Your task to perform on an android device: turn notification dots on Image 0: 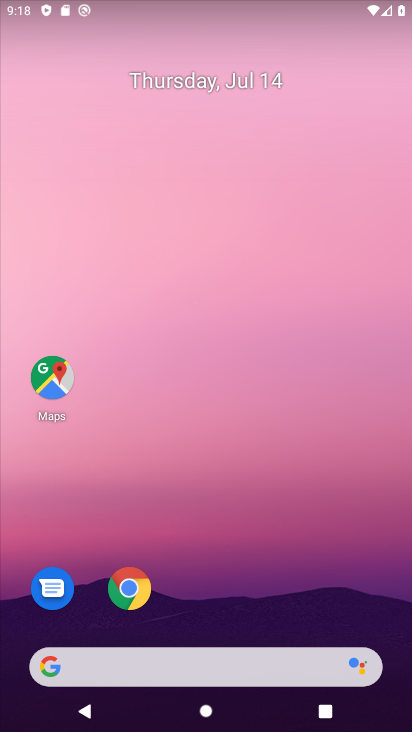
Step 0: drag from (198, 665) to (232, 259)
Your task to perform on an android device: turn notification dots on Image 1: 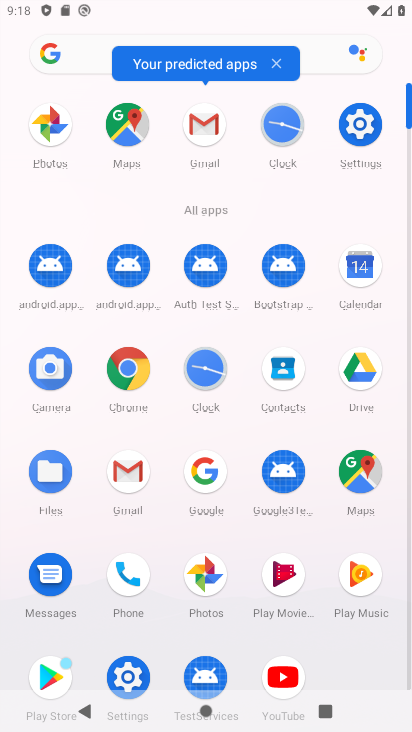
Step 1: click (358, 132)
Your task to perform on an android device: turn notification dots on Image 2: 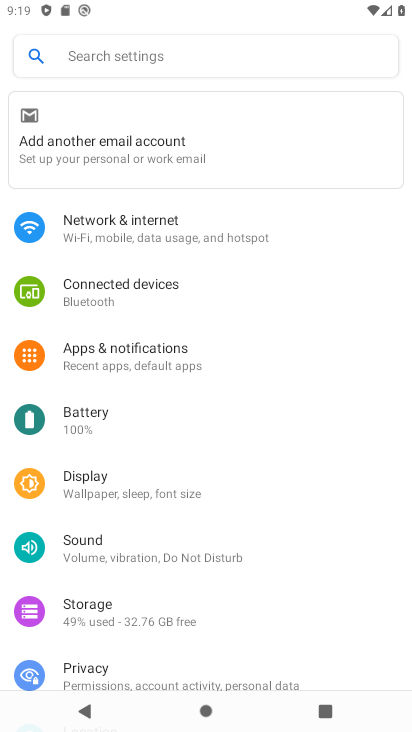
Step 2: drag from (103, 675) to (149, 402)
Your task to perform on an android device: turn notification dots on Image 3: 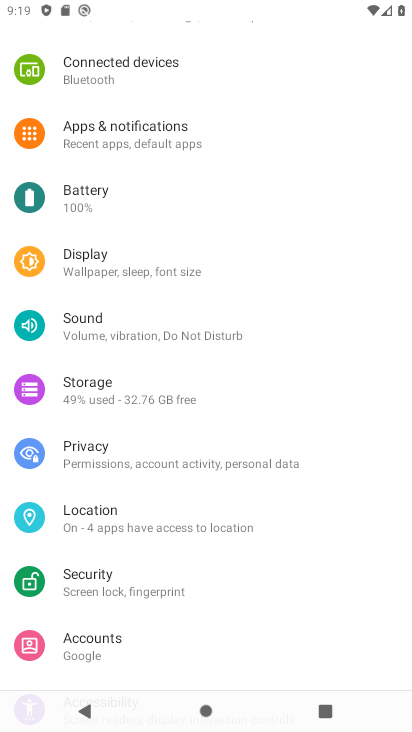
Step 3: drag from (96, 658) to (111, 388)
Your task to perform on an android device: turn notification dots on Image 4: 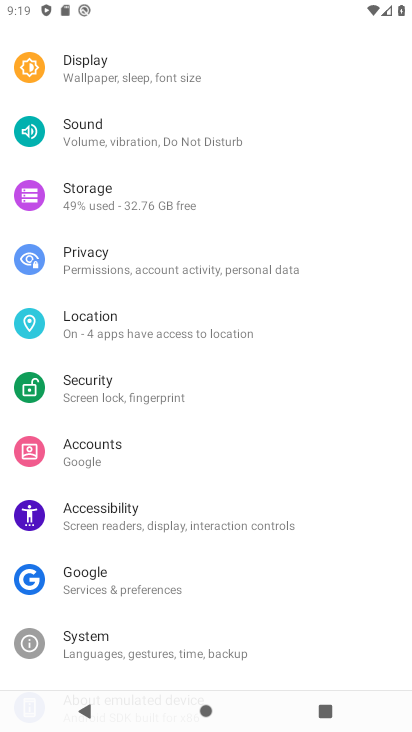
Step 4: drag from (167, 59) to (186, 625)
Your task to perform on an android device: turn notification dots on Image 5: 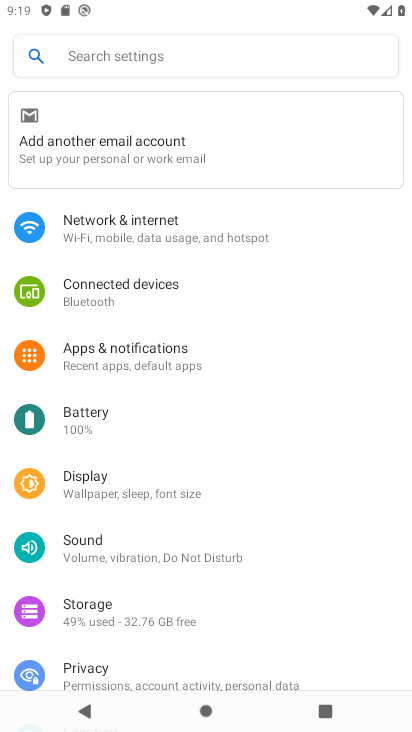
Step 5: click (93, 343)
Your task to perform on an android device: turn notification dots on Image 6: 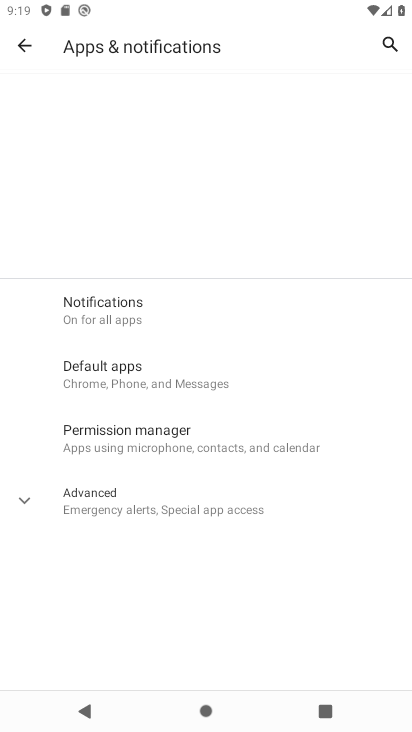
Step 6: click (81, 310)
Your task to perform on an android device: turn notification dots on Image 7: 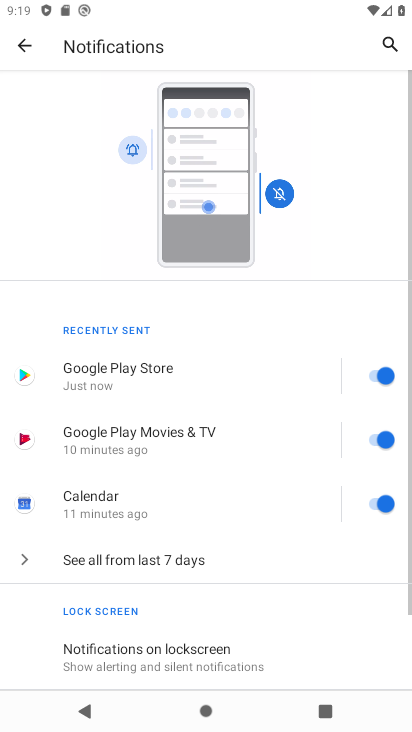
Step 7: drag from (138, 635) to (141, 321)
Your task to perform on an android device: turn notification dots on Image 8: 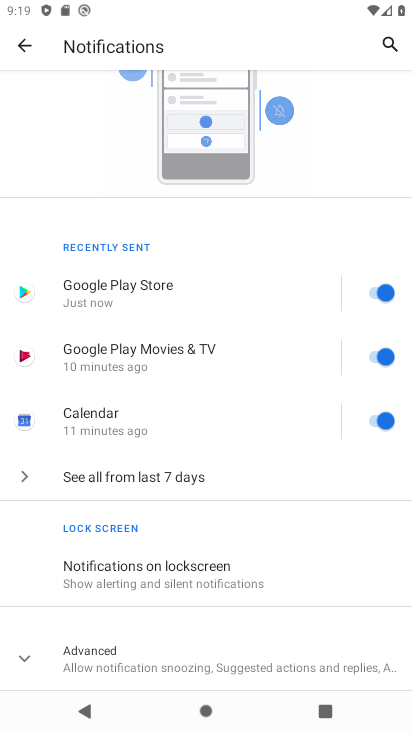
Step 8: click (114, 664)
Your task to perform on an android device: turn notification dots on Image 9: 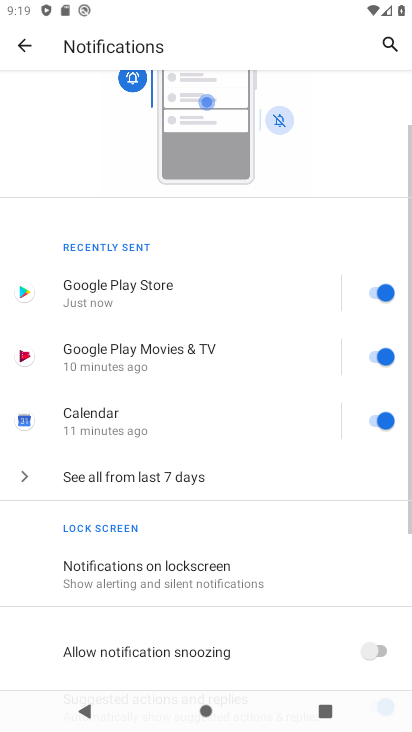
Step 9: task complete